Your task to perform on an android device: turn on sleep mode Image 0: 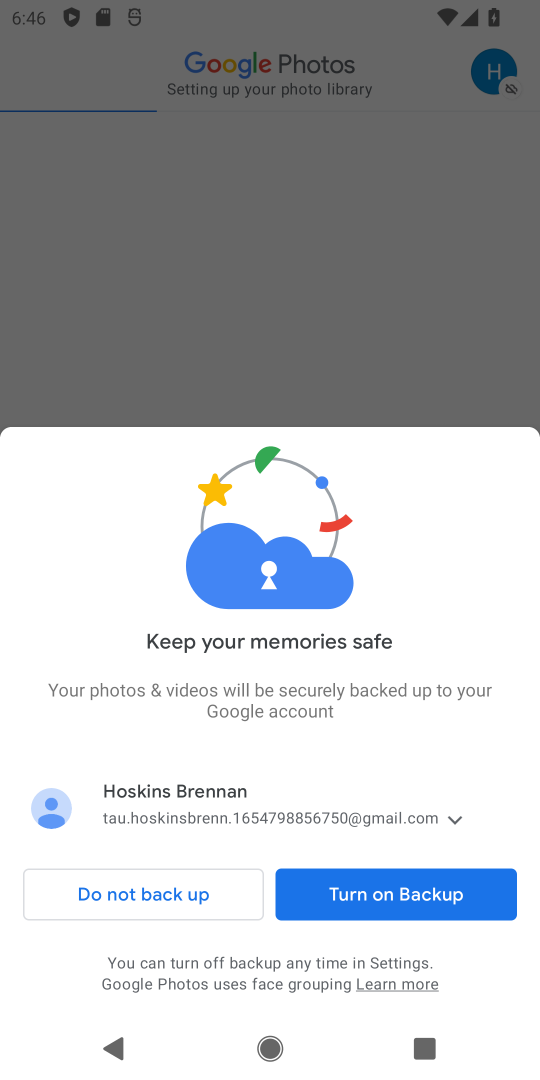
Step 0: press home button
Your task to perform on an android device: turn on sleep mode Image 1: 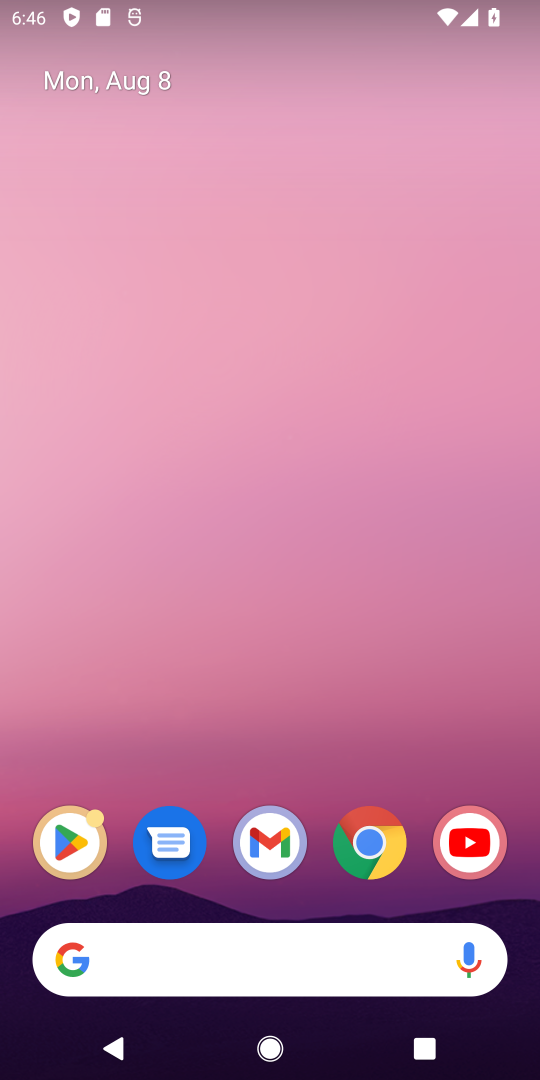
Step 1: drag from (261, 940) to (529, 795)
Your task to perform on an android device: turn on sleep mode Image 2: 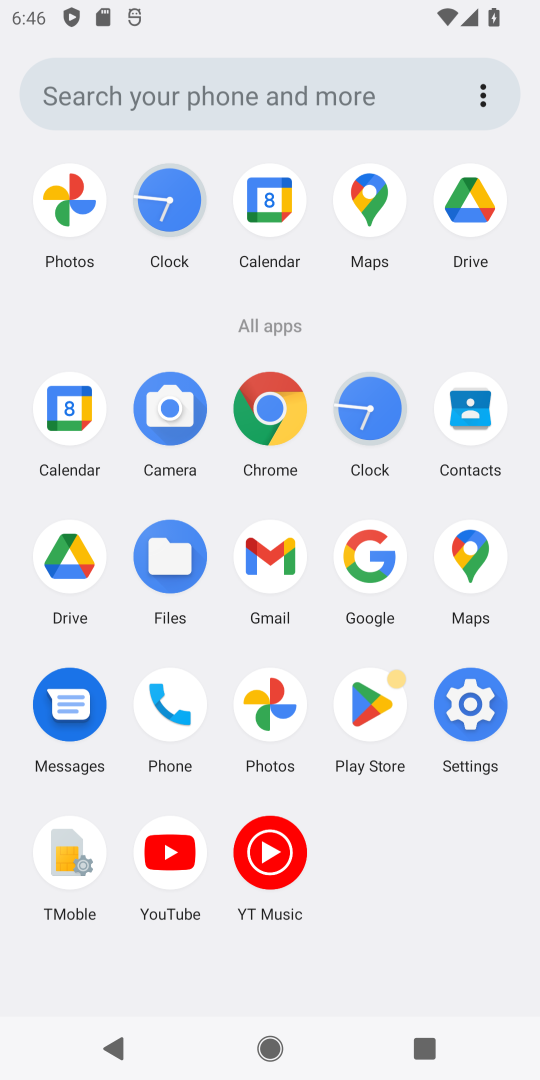
Step 2: click (449, 699)
Your task to perform on an android device: turn on sleep mode Image 3: 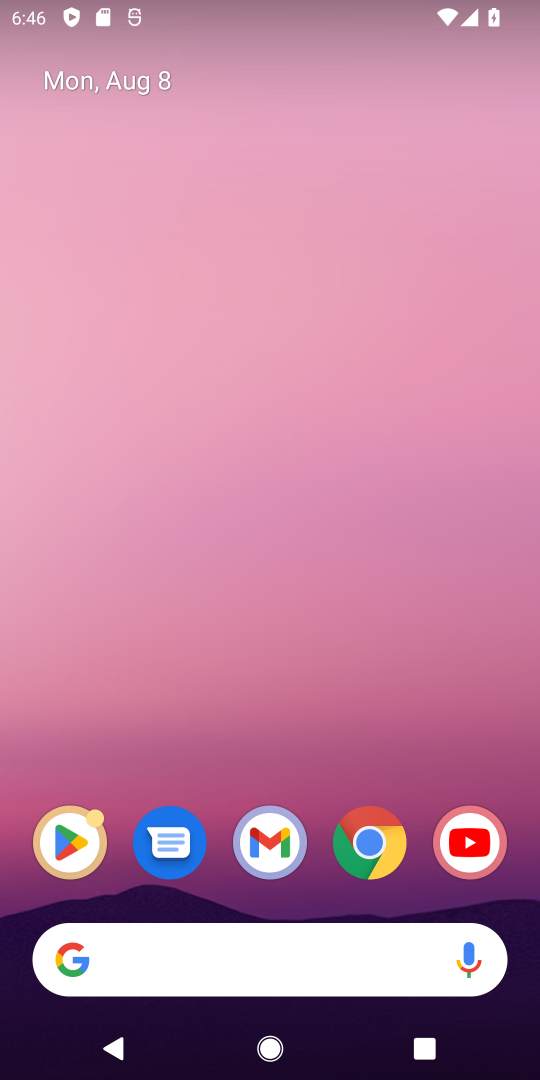
Step 3: drag from (448, 699) to (490, 28)
Your task to perform on an android device: turn on sleep mode Image 4: 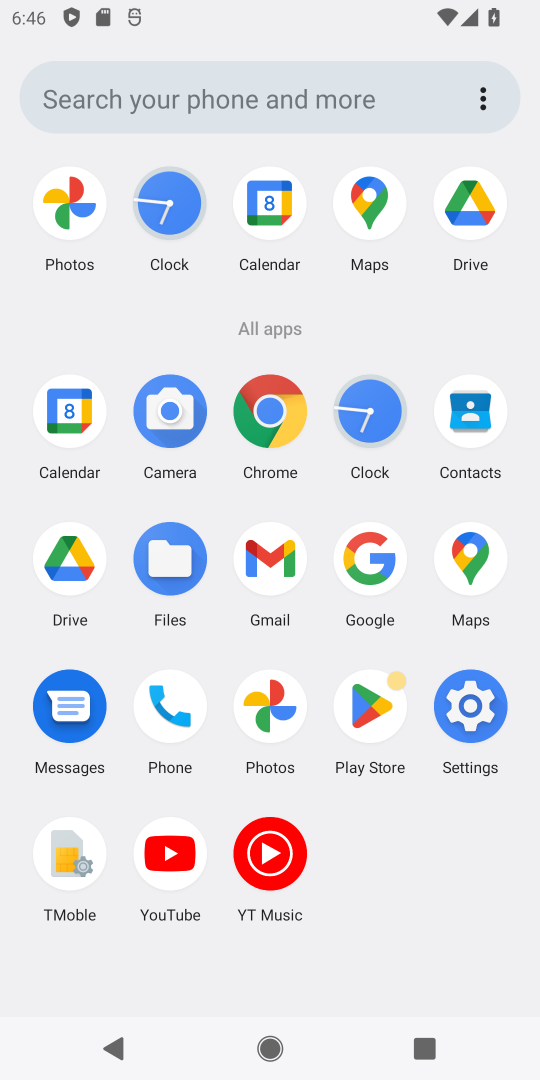
Step 4: click (466, 734)
Your task to perform on an android device: turn on sleep mode Image 5: 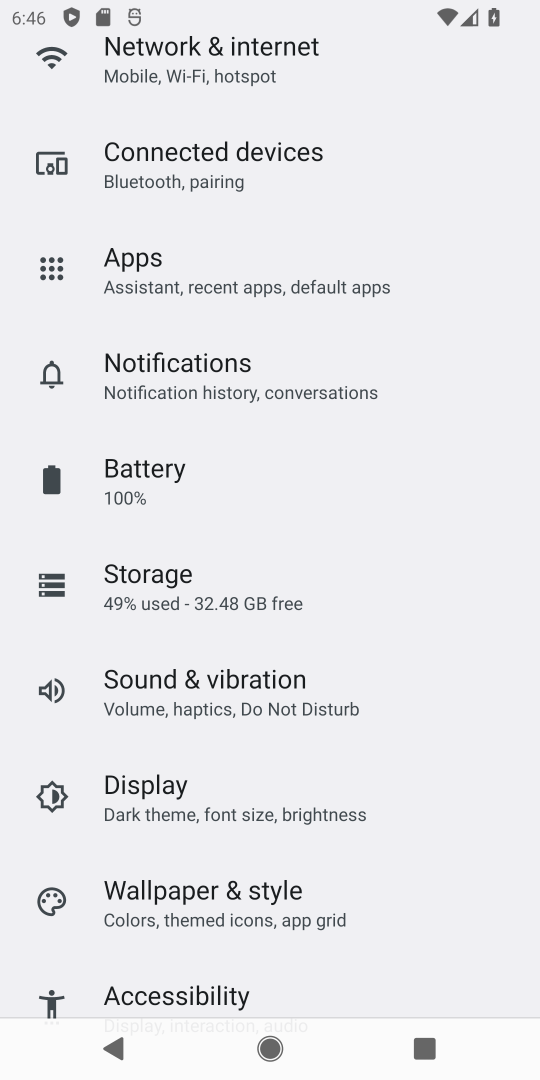
Step 5: drag from (130, 270) to (184, 946)
Your task to perform on an android device: turn on sleep mode Image 6: 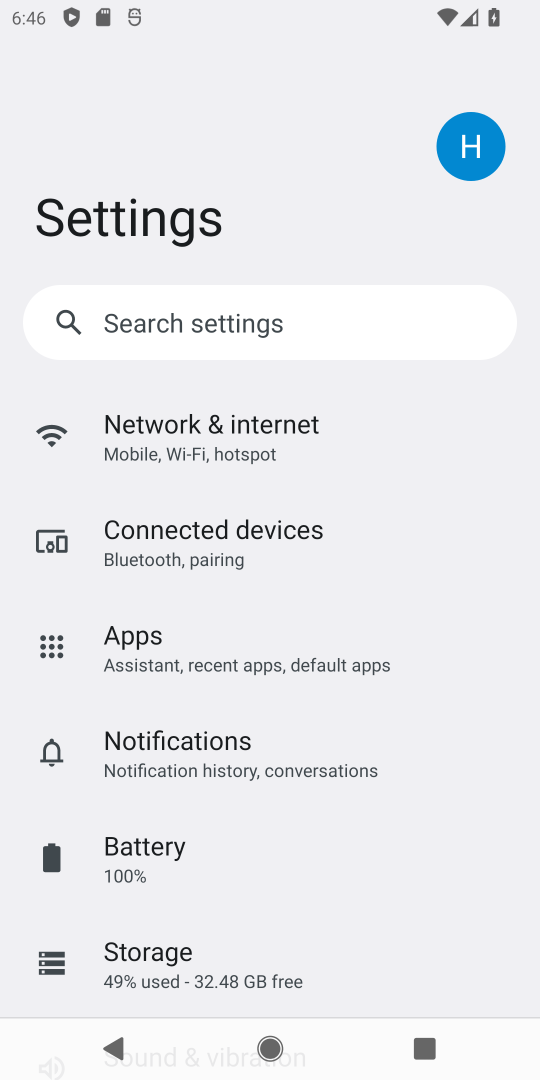
Step 6: drag from (276, 854) to (249, 322)
Your task to perform on an android device: turn on sleep mode Image 7: 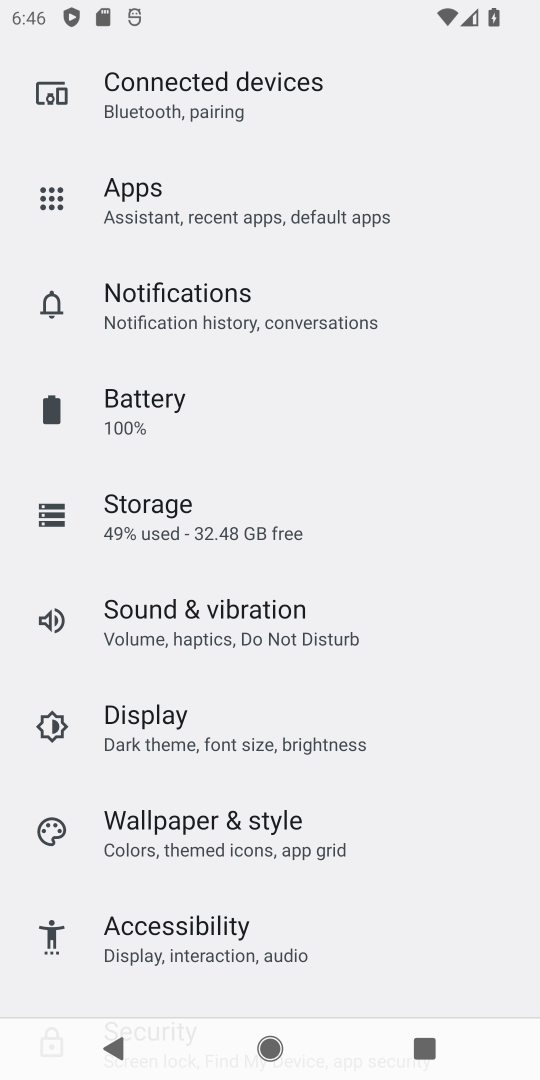
Step 7: click (138, 725)
Your task to perform on an android device: turn on sleep mode Image 8: 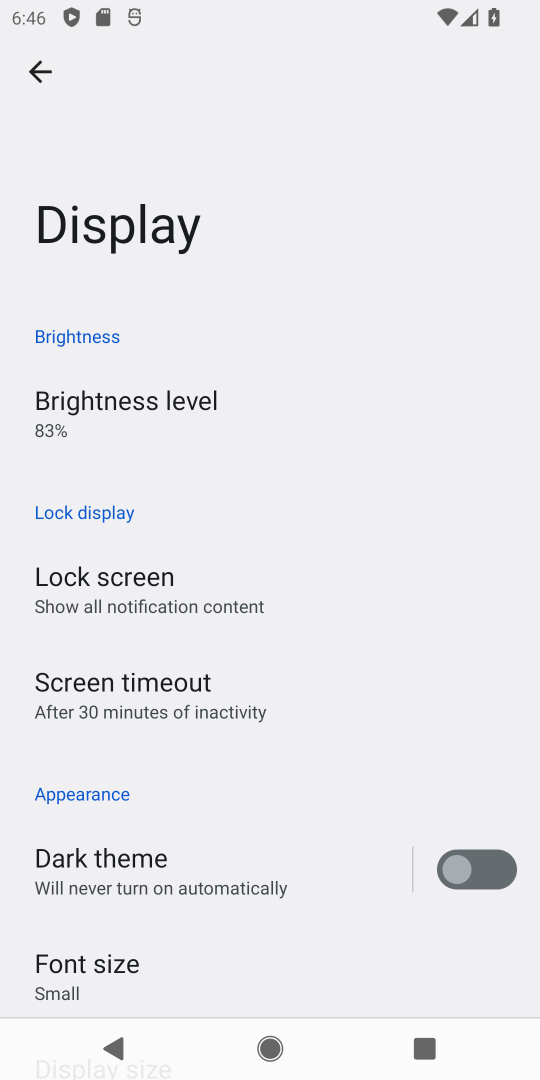
Step 8: task complete